Your task to perform on an android device: What's the weather today? Image 0: 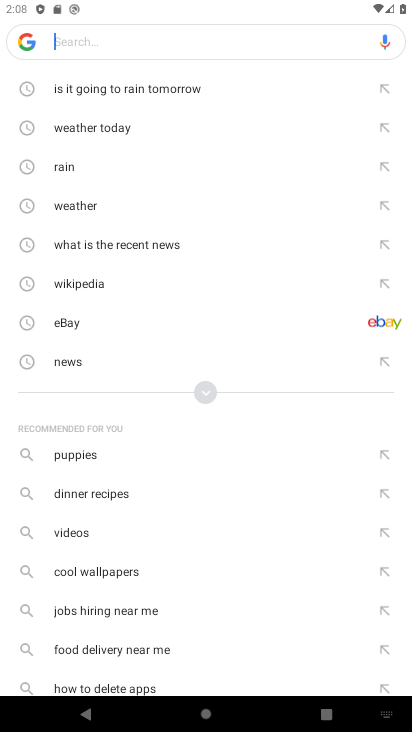
Step 0: press home button
Your task to perform on an android device: What's the weather today? Image 1: 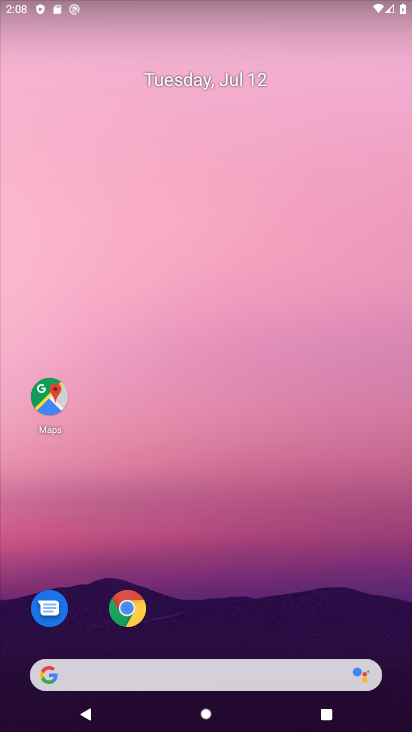
Step 1: click (150, 676)
Your task to perform on an android device: What's the weather today? Image 2: 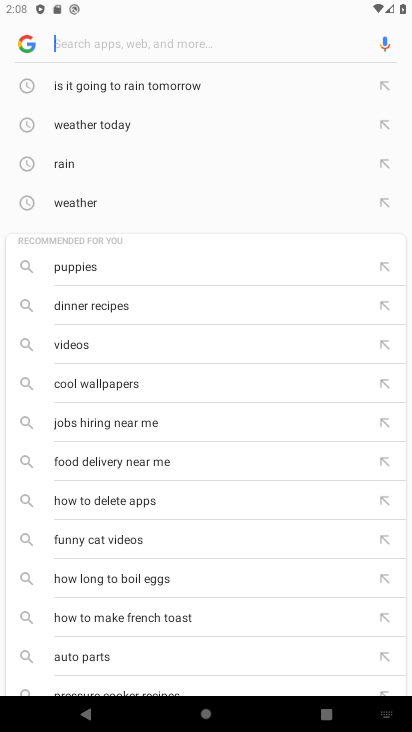
Step 2: click (121, 123)
Your task to perform on an android device: What's the weather today? Image 3: 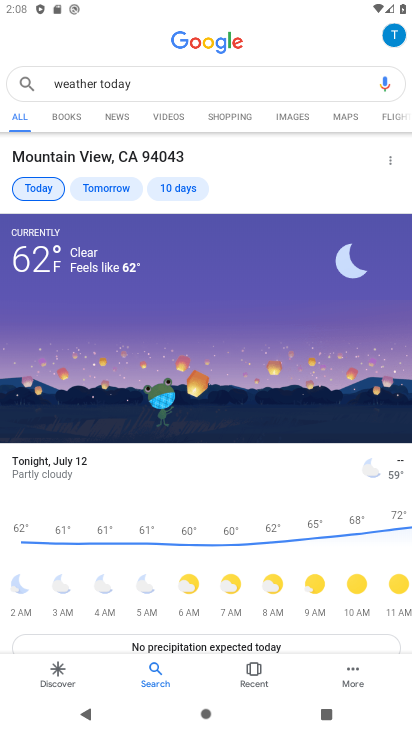
Step 3: task complete